Your task to perform on an android device: clear all cookies in the chrome app Image 0: 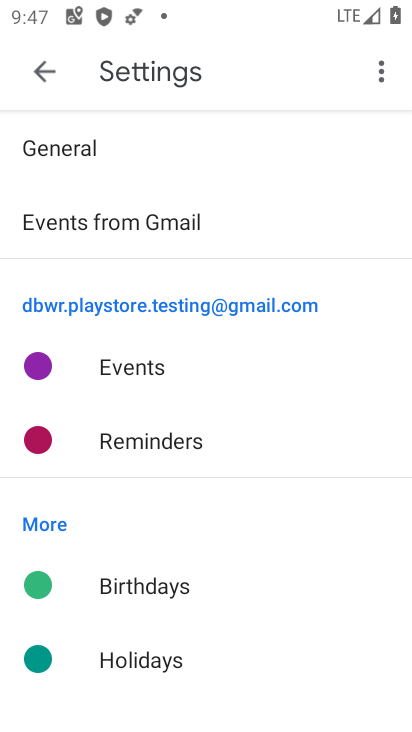
Step 0: press home button
Your task to perform on an android device: clear all cookies in the chrome app Image 1: 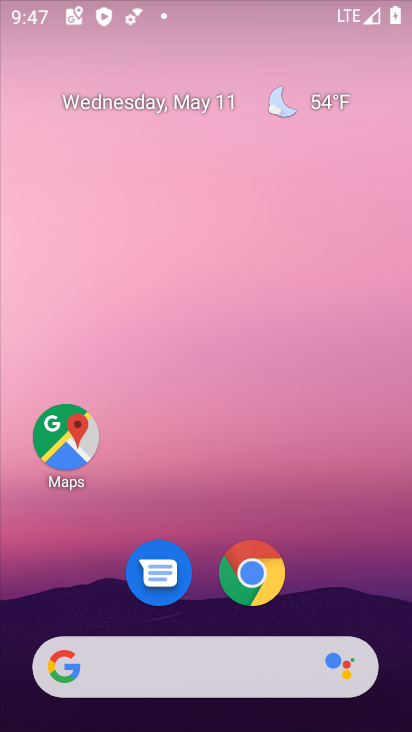
Step 1: drag from (247, 684) to (195, 75)
Your task to perform on an android device: clear all cookies in the chrome app Image 2: 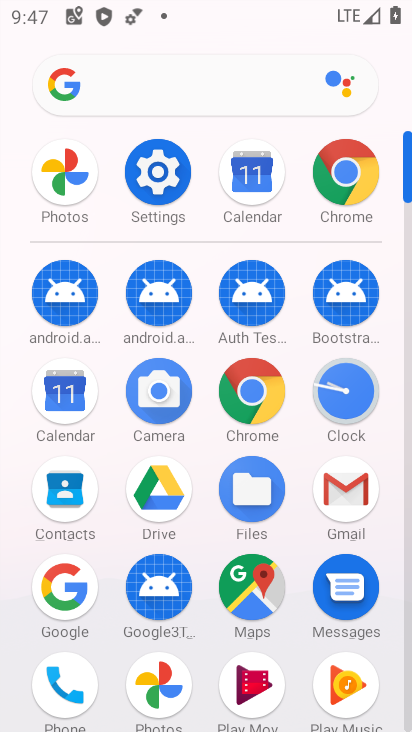
Step 2: click (259, 409)
Your task to perform on an android device: clear all cookies in the chrome app Image 3: 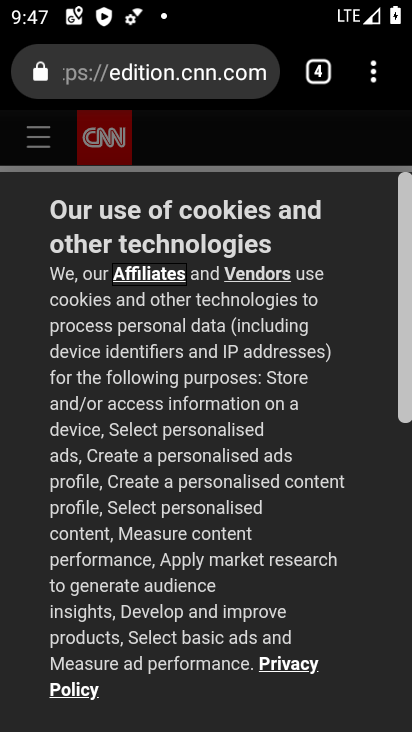
Step 3: drag from (373, 76) to (173, 576)
Your task to perform on an android device: clear all cookies in the chrome app Image 4: 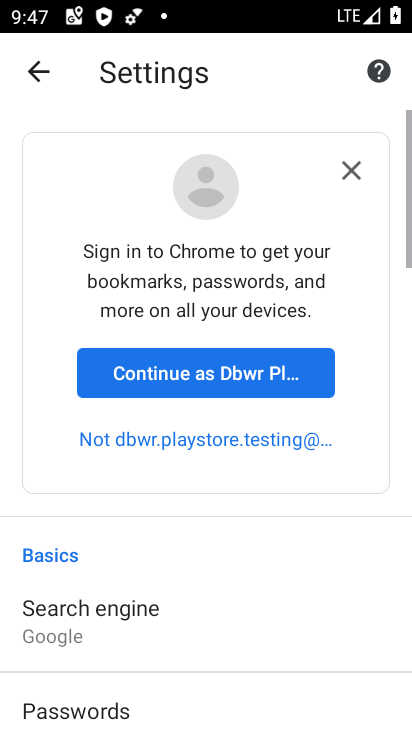
Step 4: drag from (167, 728) to (175, 86)
Your task to perform on an android device: clear all cookies in the chrome app Image 5: 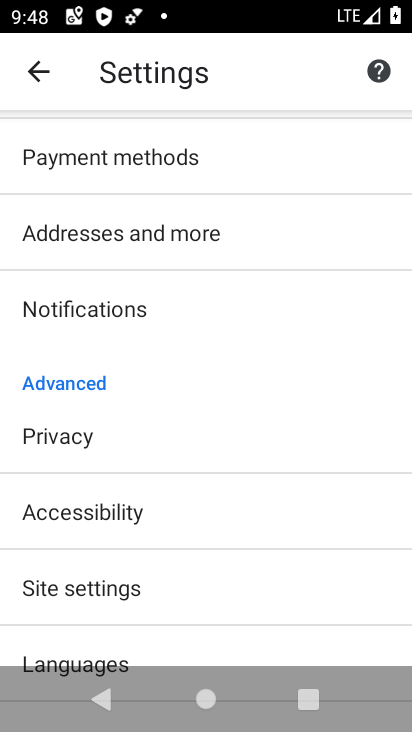
Step 5: click (111, 448)
Your task to perform on an android device: clear all cookies in the chrome app Image 6: 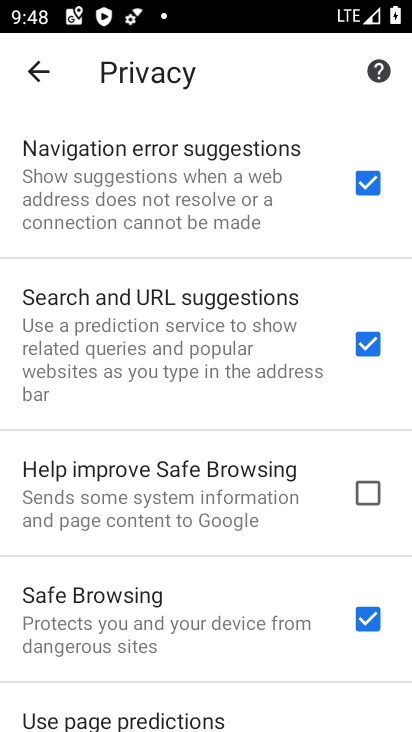
Step 6: drag from (189, 656) to (192, 56)
Your task to perform on an android device: clear all cookies in the chrome app Image 7: 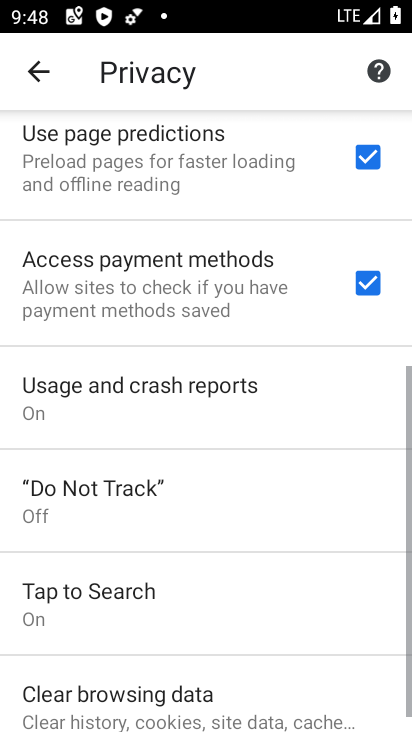
Step 7: drag from (106, 632) to (140, 80)
Your task to perform on an android device: clear all cookies in the chrome app Image 8: 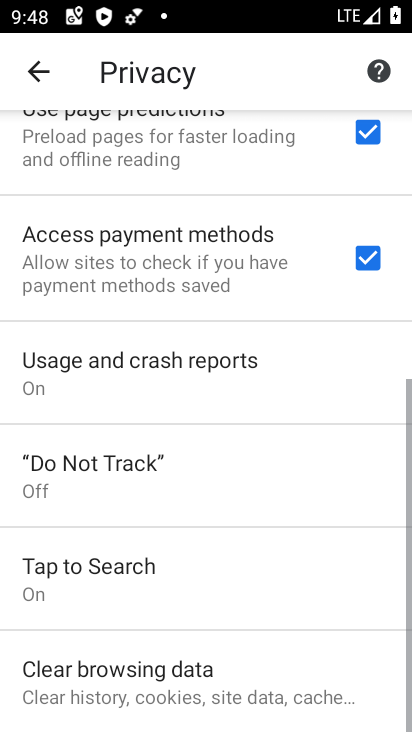
Step 8: click (133, 663)
Your task to perform on an android device: clear all cookies in the chrome app Image 9: 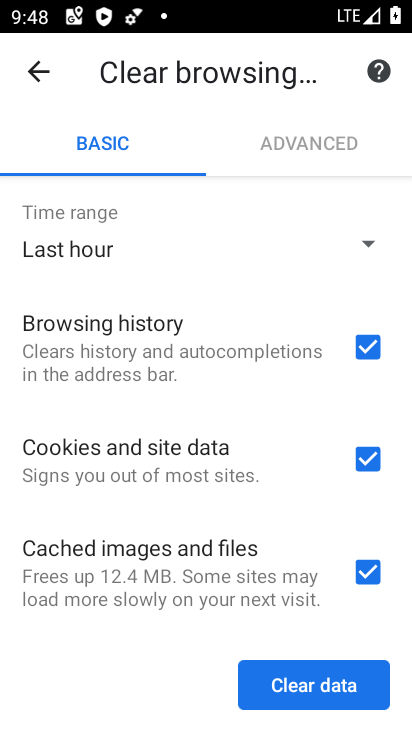
Step 9: click (315, 688)
Your task to perform on an android device: clear all cookies in the chrome app Image 10: 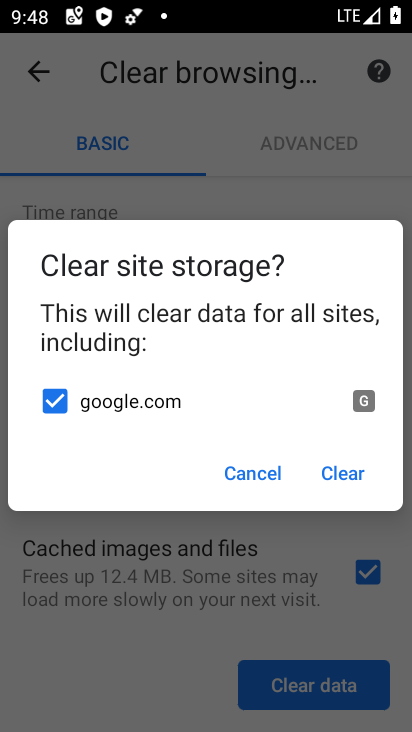
Step 10: click (340, 475)
Your task to perform on an android device: clear all cookies in the chrome app Image 11: 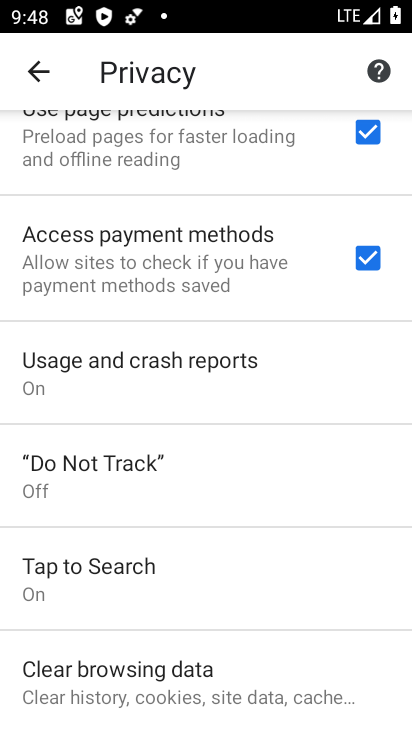
Step 11: task complete